Your task to perform on an android device: Is it going to rain this weekend? Image 0: 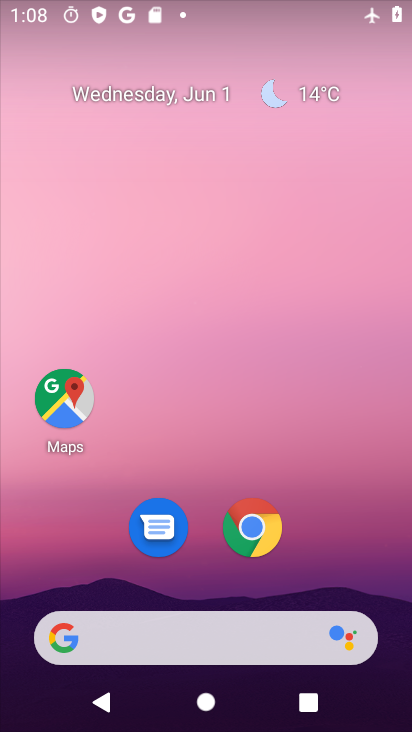
Step 0: drag from (224, 543) to (270, 137)
Your task to perform on an android device: Is it going to rain this weekend? Image 1: 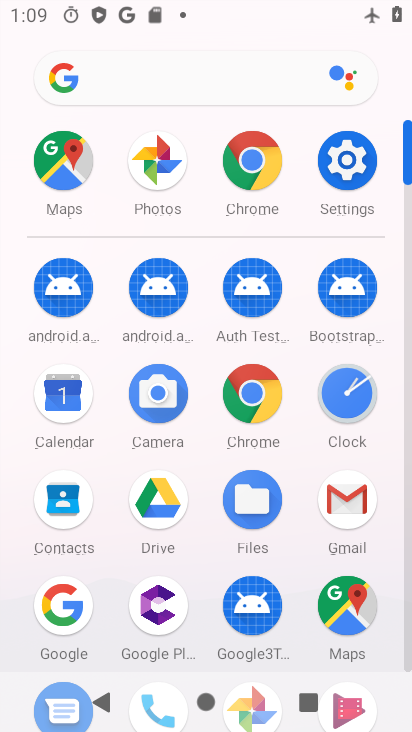
Step 1: drag from (179, 527) to (247, 326)
Your task to perform on an android device: Is it going to rain this weekend? Image 2: 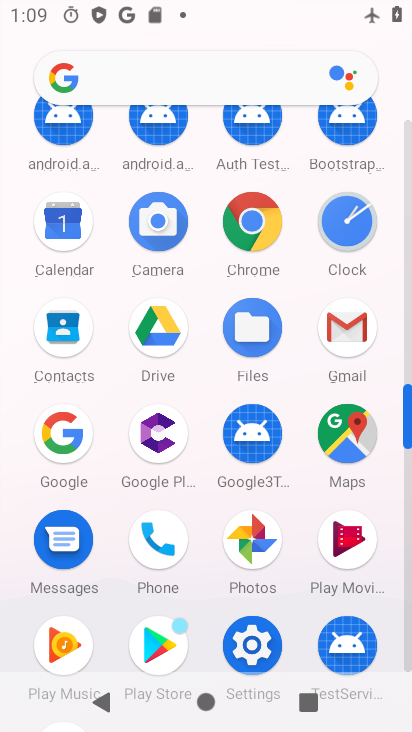
Step 2: drag from (124, 364) to (115, 534)
Your task to perform on an android device: Is it going to rain this weekend? Image 3: 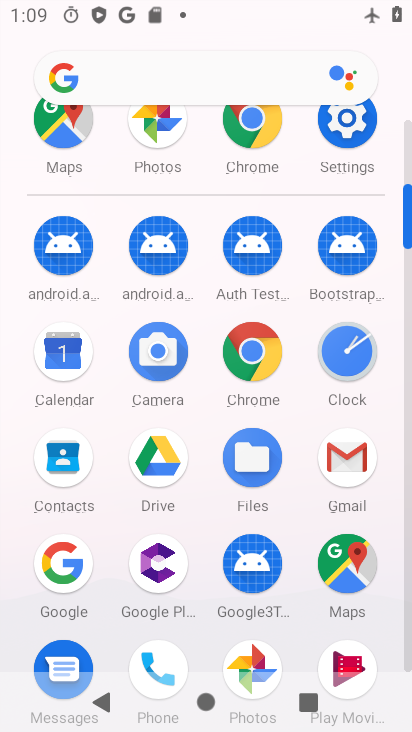
Step 3: click (66, 567)
Your task to perform on an android device: Is it going to rain this weekend? Image 4: 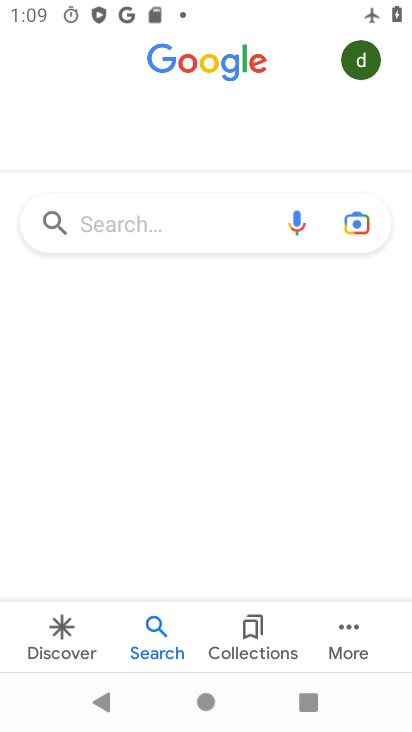
Step 4: click (181, 241)
Your task to perform on an android device: Is it going to rain this weekend? Image 5: 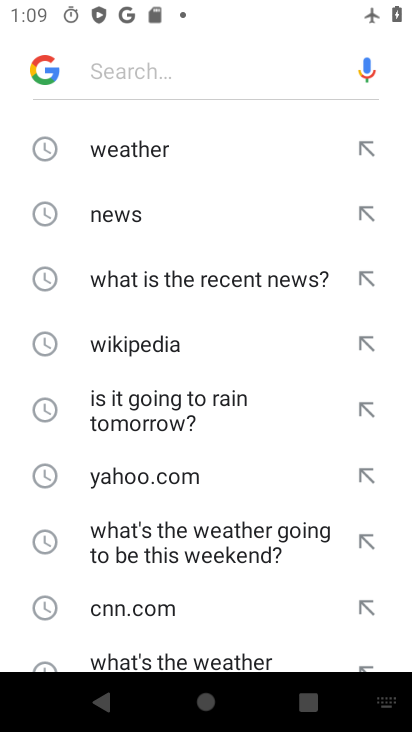
Step 5: click (176, 144)
Your task to perform on an android device: Is it going to rain this weekend? Image 6: 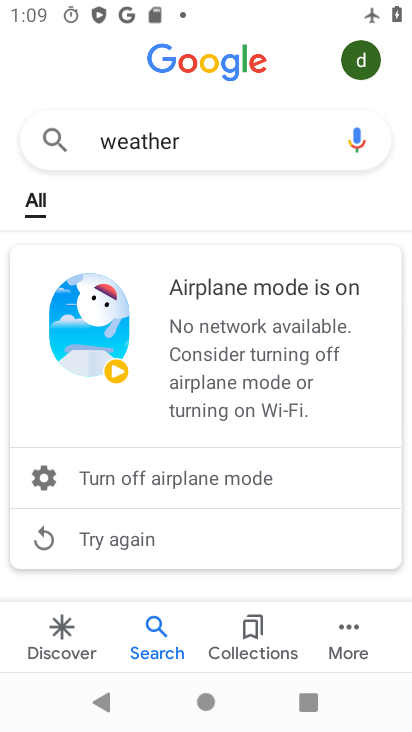
Step 6: task complete